Your task to perform on an android device: What's the weather? Image 0: 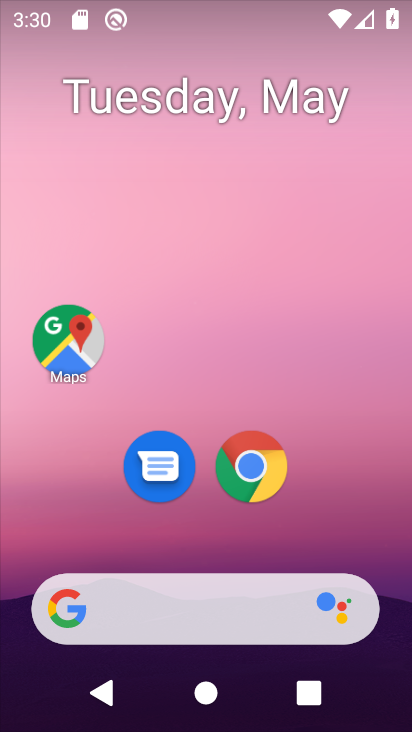
Step 0: drag from (250, 507) to (280, 159)
Your task to perform on an android device: What's the weather? Image 1: 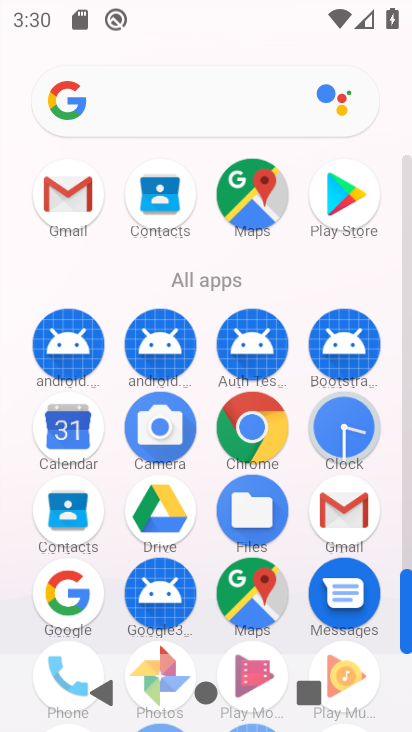
Step 1: click (264, 418)
Your task to perform on an android device: What's the weather? Image 2: 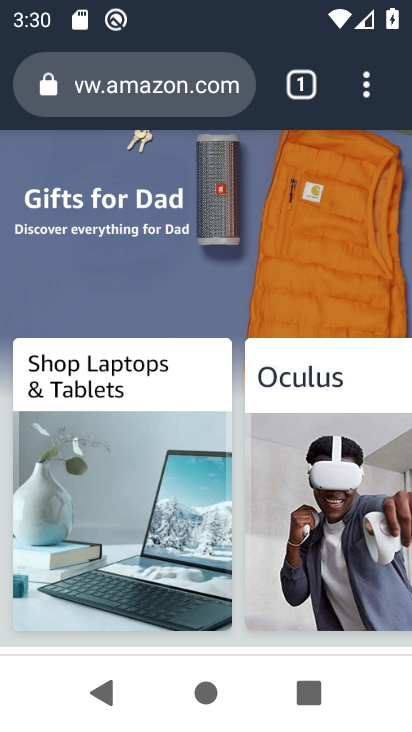
Step 2: click (123, 72)
Your task to perform on an android device: What's the weather? Image 3: 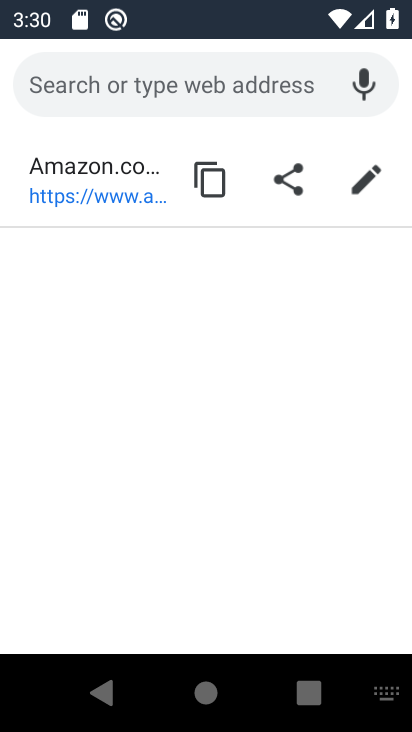
Step 3: type "What's the weather?"
Your task to perform on an android device: What's the weather? Image 4: 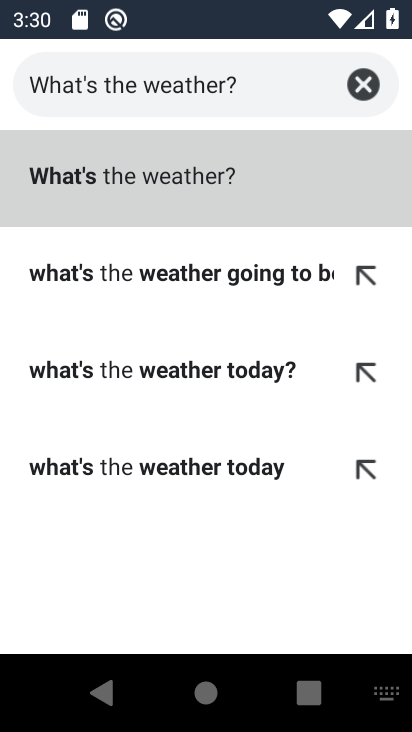
Step 4: click (145, 182)
Your task to perform on an android device: What's the weather? Image 5: 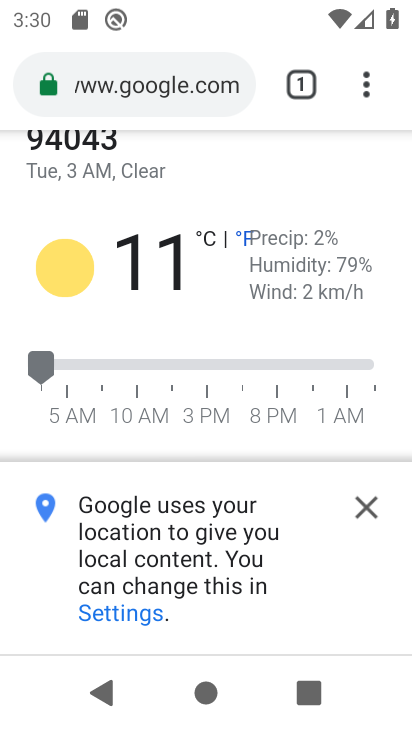
Step 5: task complete